Your task to perform on an android device: Go to Amazon Image 0: 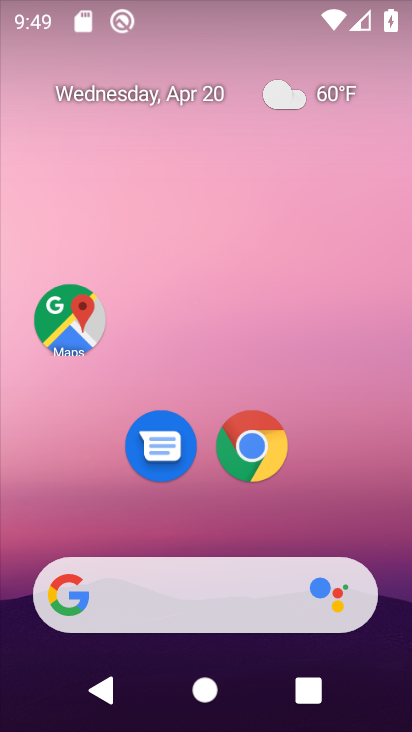
Step 0: drag from (347, 509) to (398, 156)
Your task to perform on an android device: Go to Amazon Image 1: 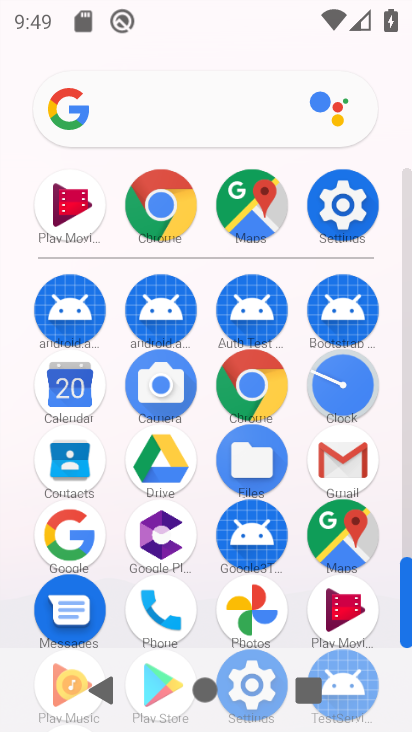
Step 1: click (266, 383)
Your task to perform on an android device: Go to Amazon Image 2: 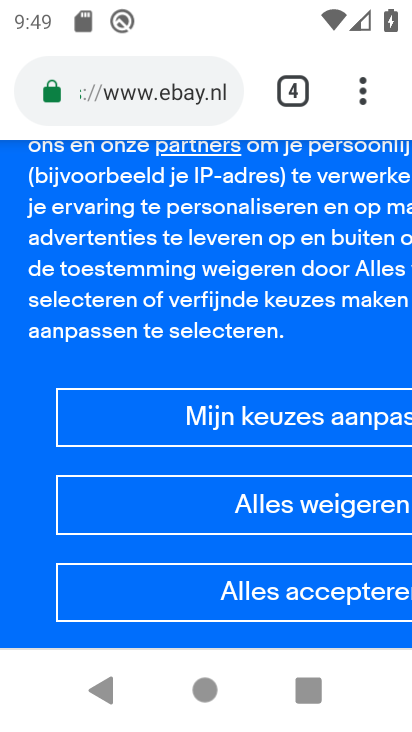
Step 2: click (290, 100)
Your task to perform on an android device: Go to Amazon Image 3: 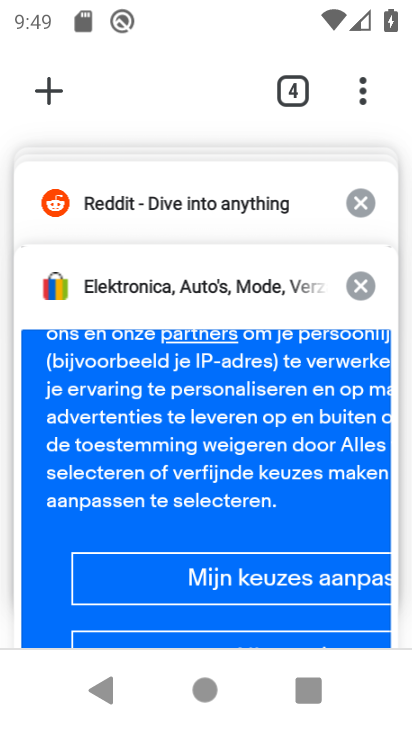
Step 3: click (54, 89)
Your task to perform on an android device: Go to Amazon Image 4: 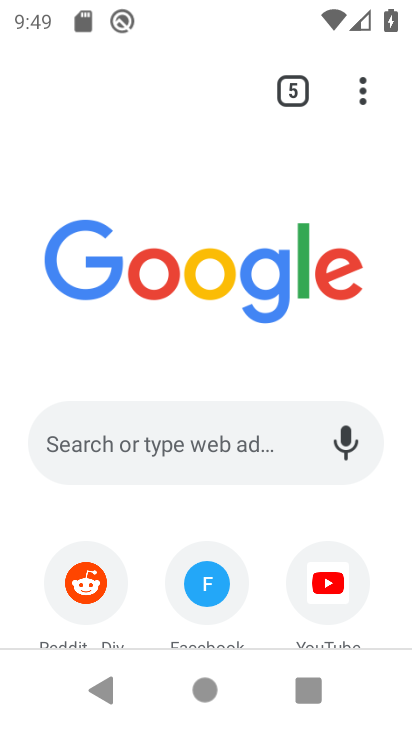
Step 4: drag from (189, 494) to (231, 201)
Your task to perform on an android device: Go to Amazon Image 5: 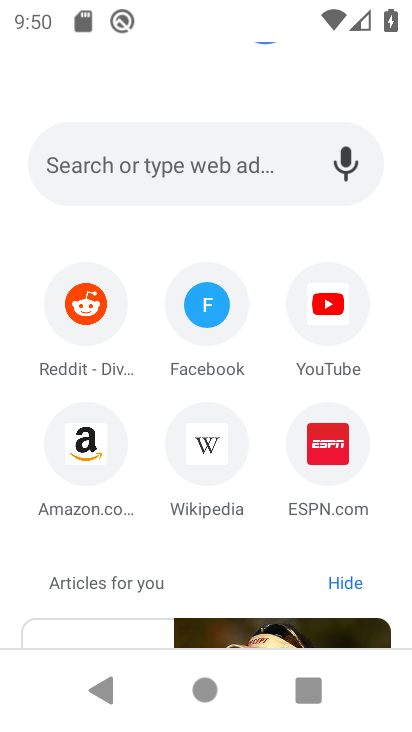
Step 5: click (89, 487)
Your task to perform on an android device: Go to Amazon Image 6: 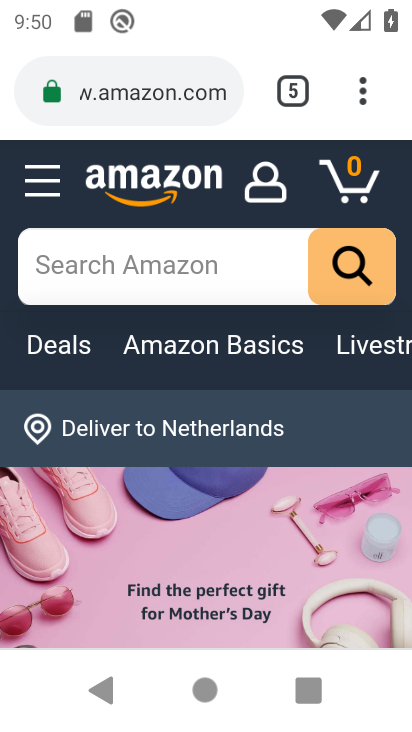
Step 6: task complete